Your task to perform on an android device: Clear all items from cart on amazon.com. Add "apple airpods pro" to the cart on amazon.com, then select checkout. Image 0: 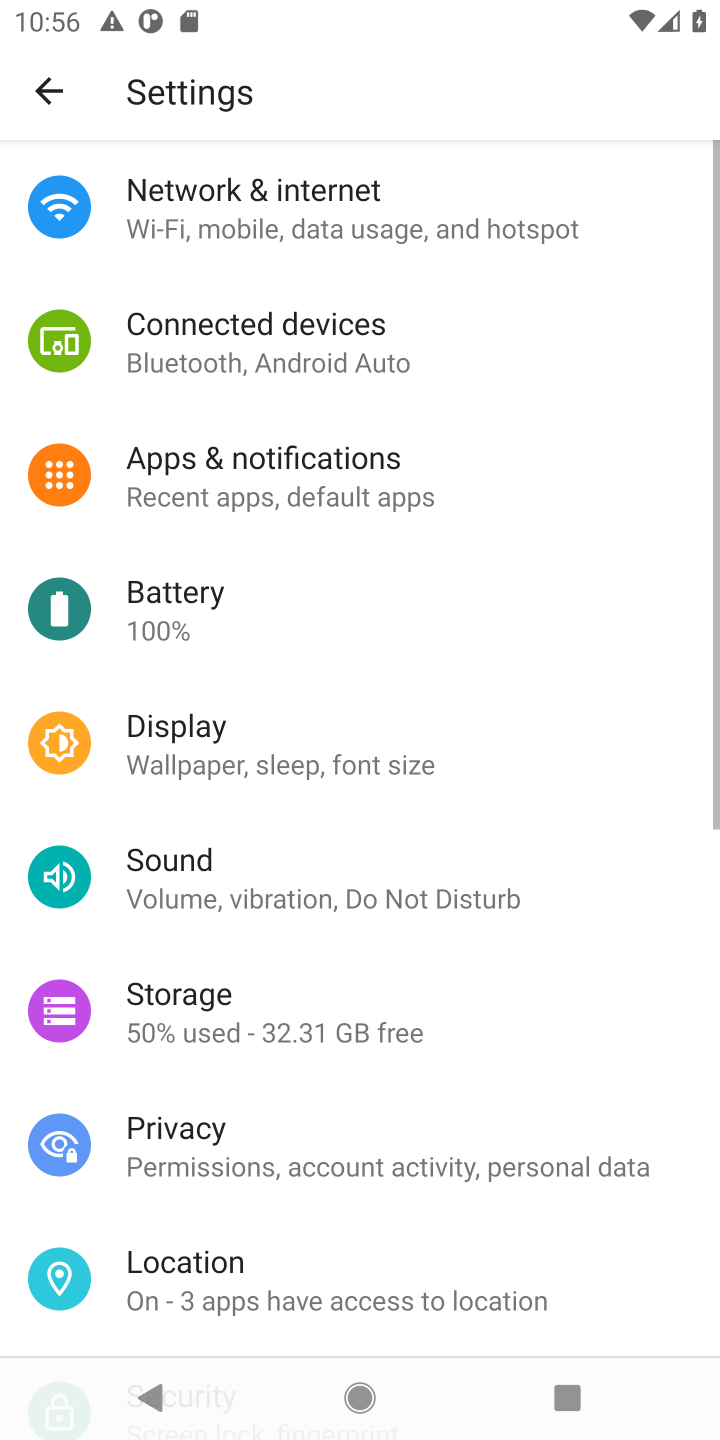
Step 0: press home button
Your task to perform on an android device: Clear all items from cart on amazon.com. Add "apple airpods pro" to the cart on amazon.com, then select checkout. Image 1: 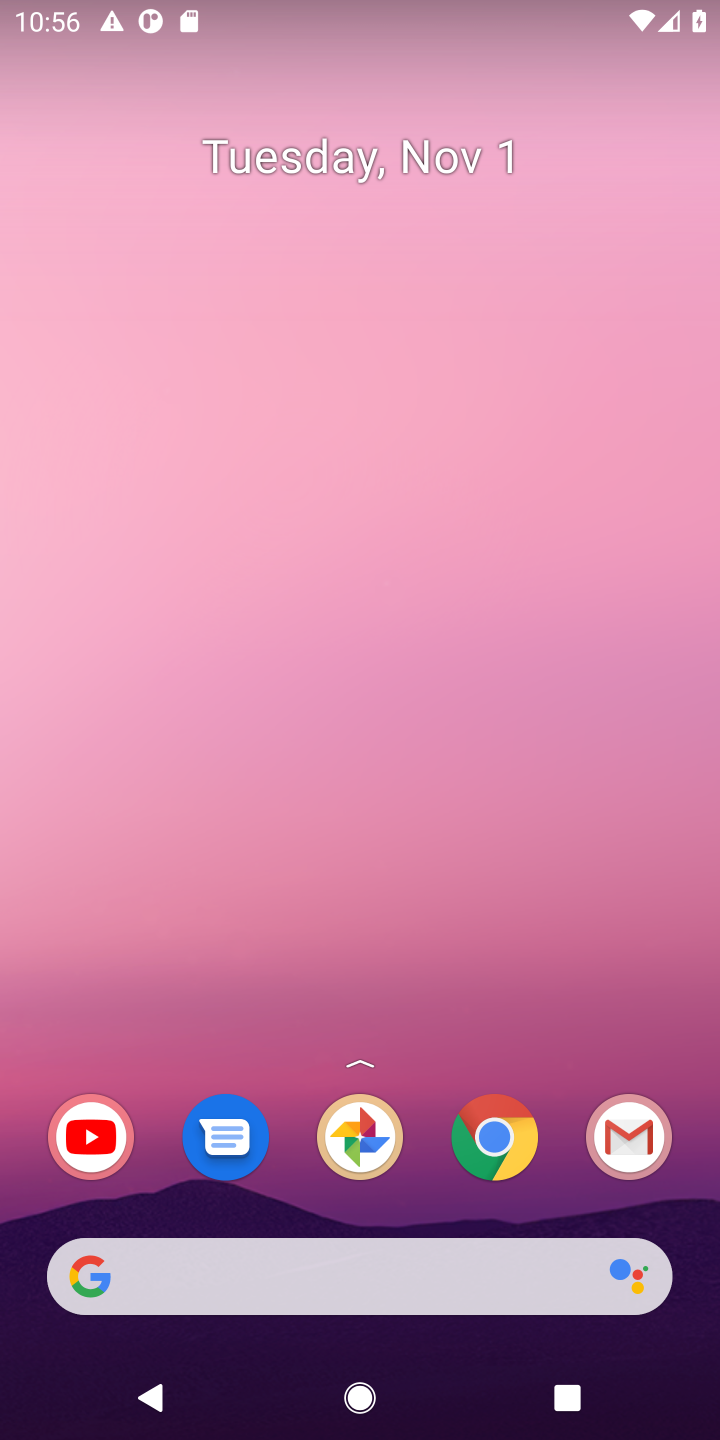
Step 1: click (324, 1280)
Your task to perform on an android device: Clear all items from cart on amazon.com. Add "apple airpods pro" to the cart on amazon.com, then select checkout. Image 2: 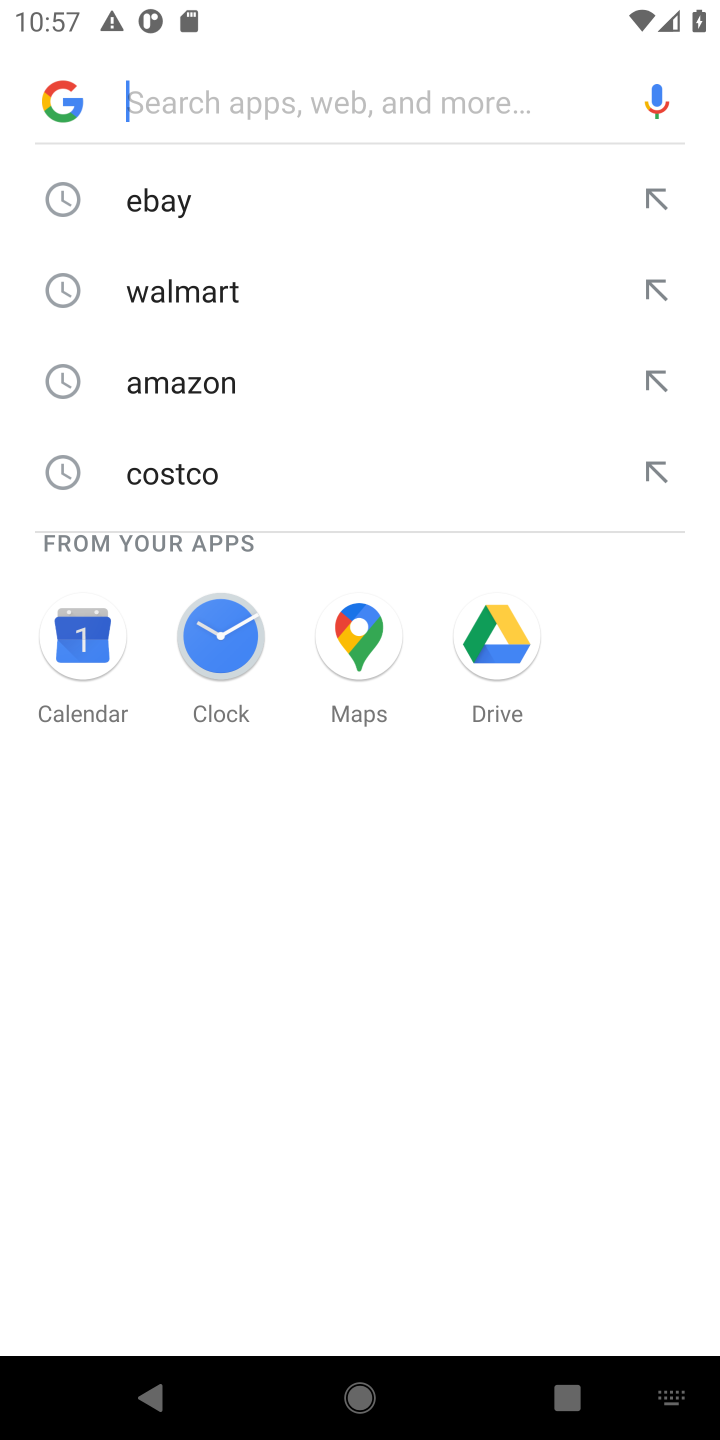
Step 2: click (197, 399)
Your task to perform on an android device: Clear all items from cart on amazon.com. Add "apple airpods pro" to the cart on amazon.com, then select checkout. Image 3: 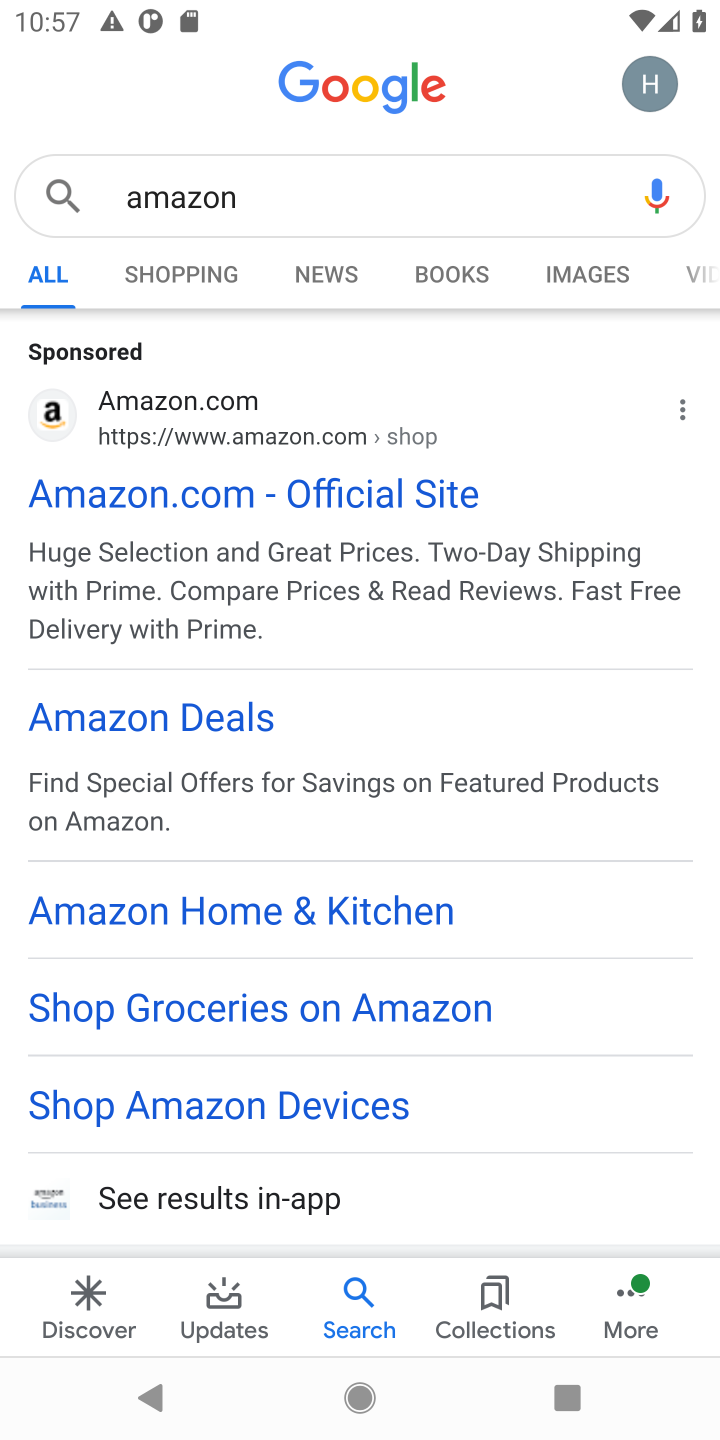
Step 3: click (163, 399)
Your task to perform on an android device: Clear all items from cart on amazon.com. Add "apple airpods pro" to the cart on amazon.com, then select checkout. Image 4: 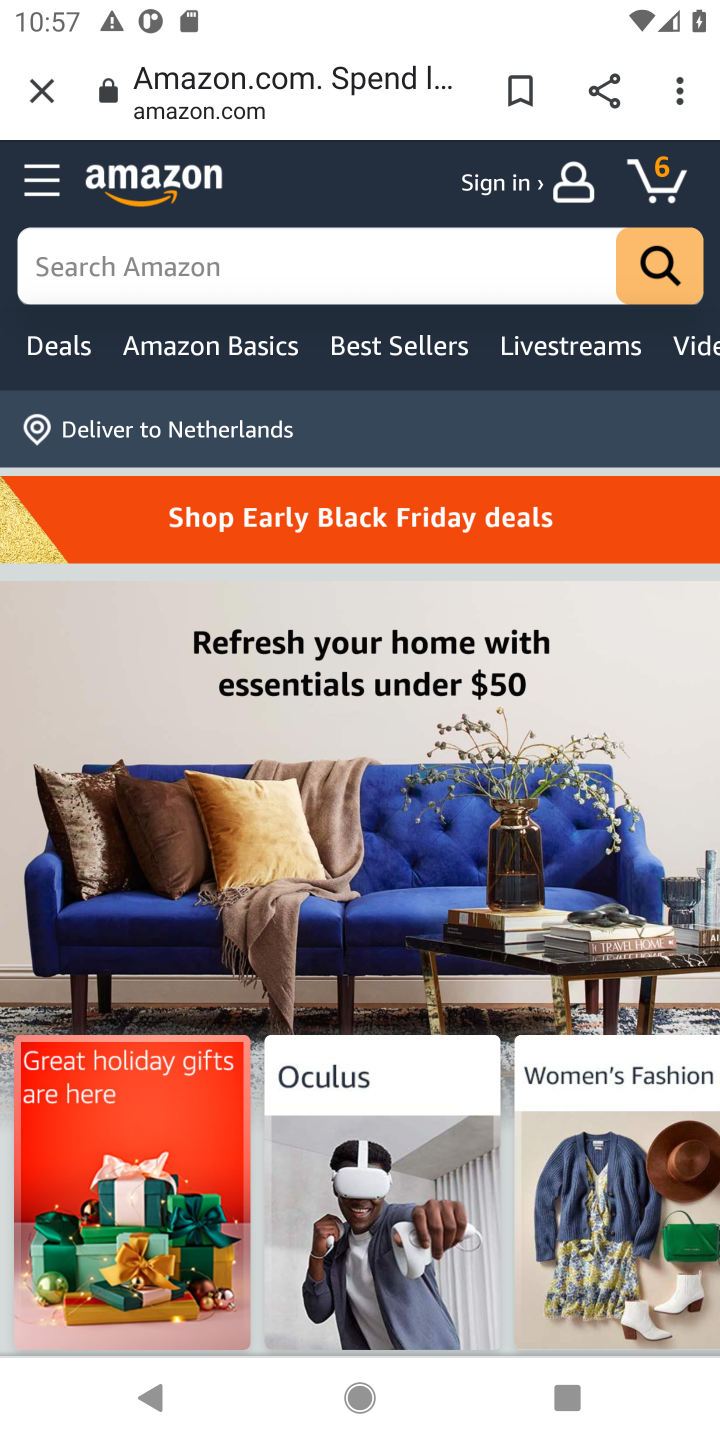
Step 4: click (188, 268)
Your task to perform on an android device: Clear all items from cart on amazon.com. Add "apple airpods pro" to the cart on amazon.com, then select checkout. Image 5: 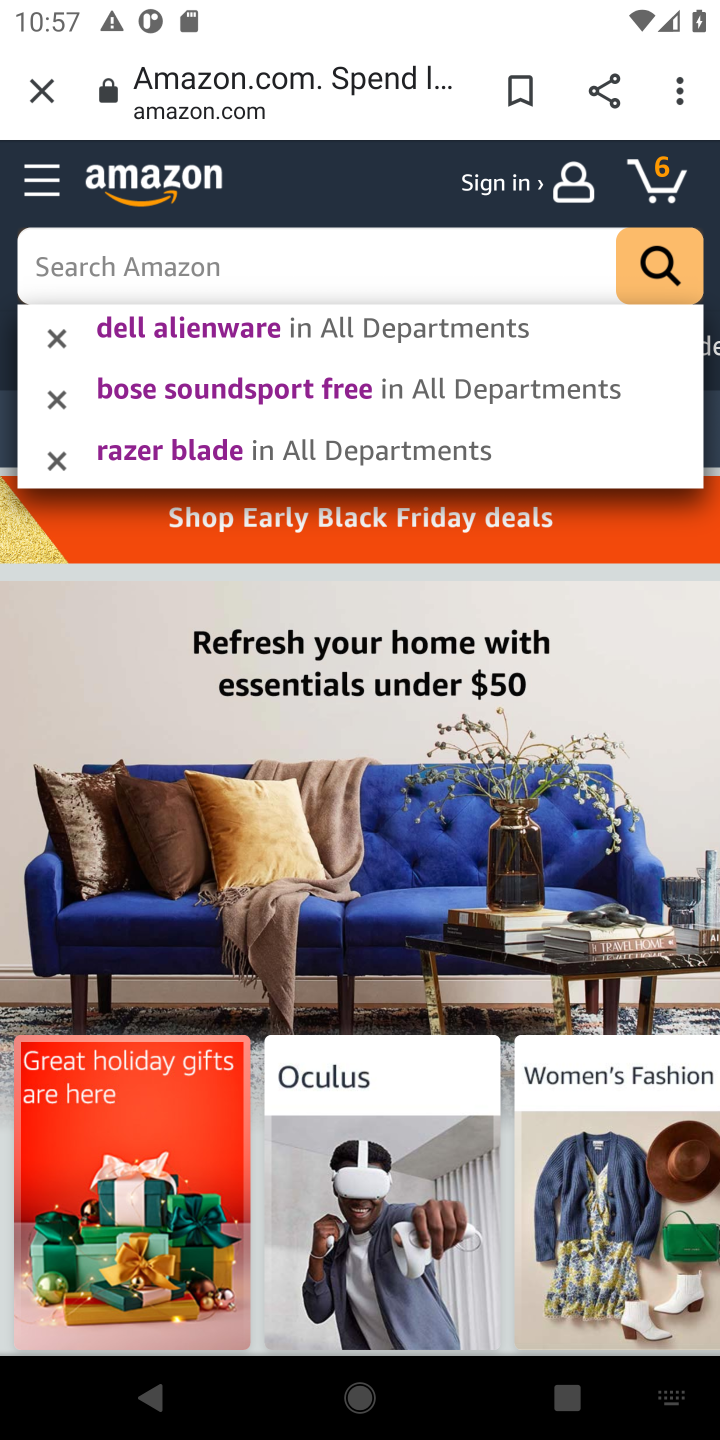
Step 5: type "apple airpods pro""
Your task to perform on an android device: Clear all items from cart on amazon.com. Add "apple airpods pro" to the cart on amazon.com, then select checkout. Image 6: 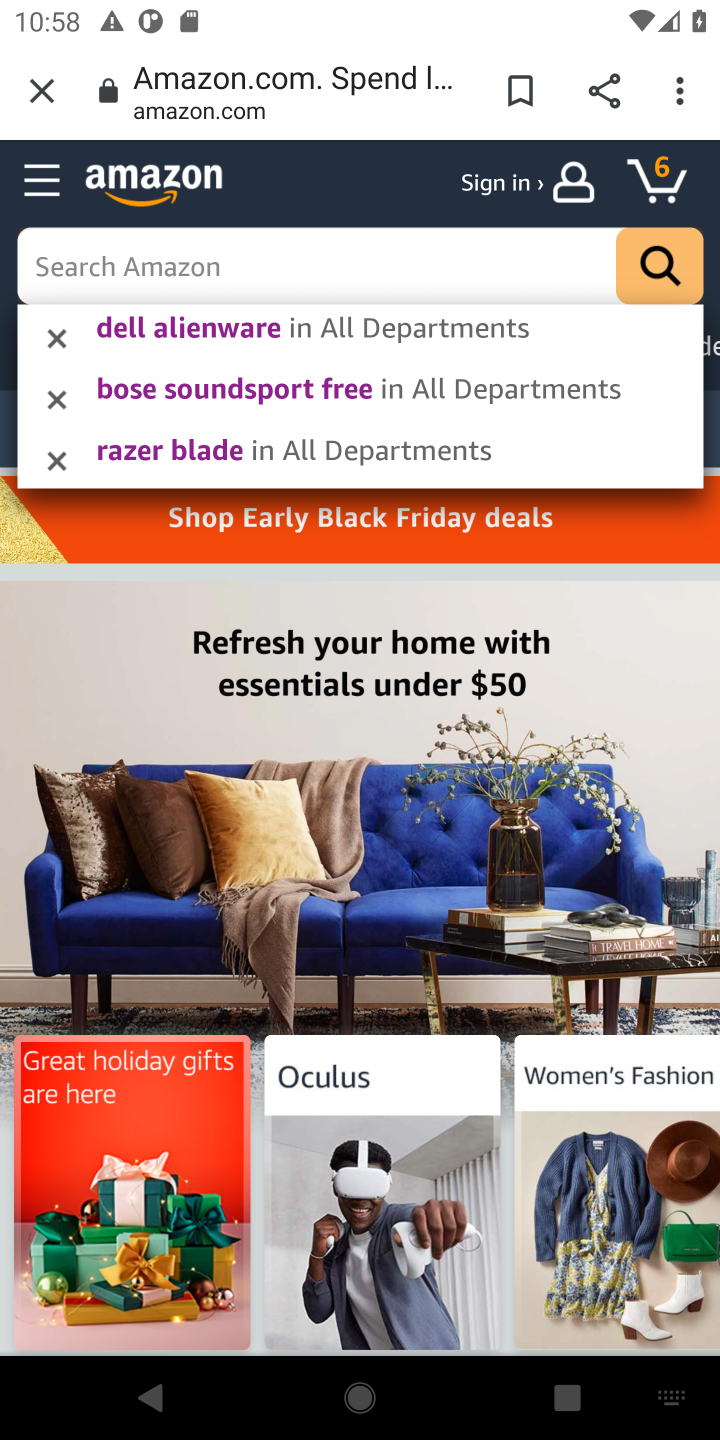
Step 6: type "apple airpods pro""
Your task to perform on an android device: Clear all items from cart on amazon.com. Add "apple airpods pro" to the cart on amazon.com, then select checkout. Image 7: 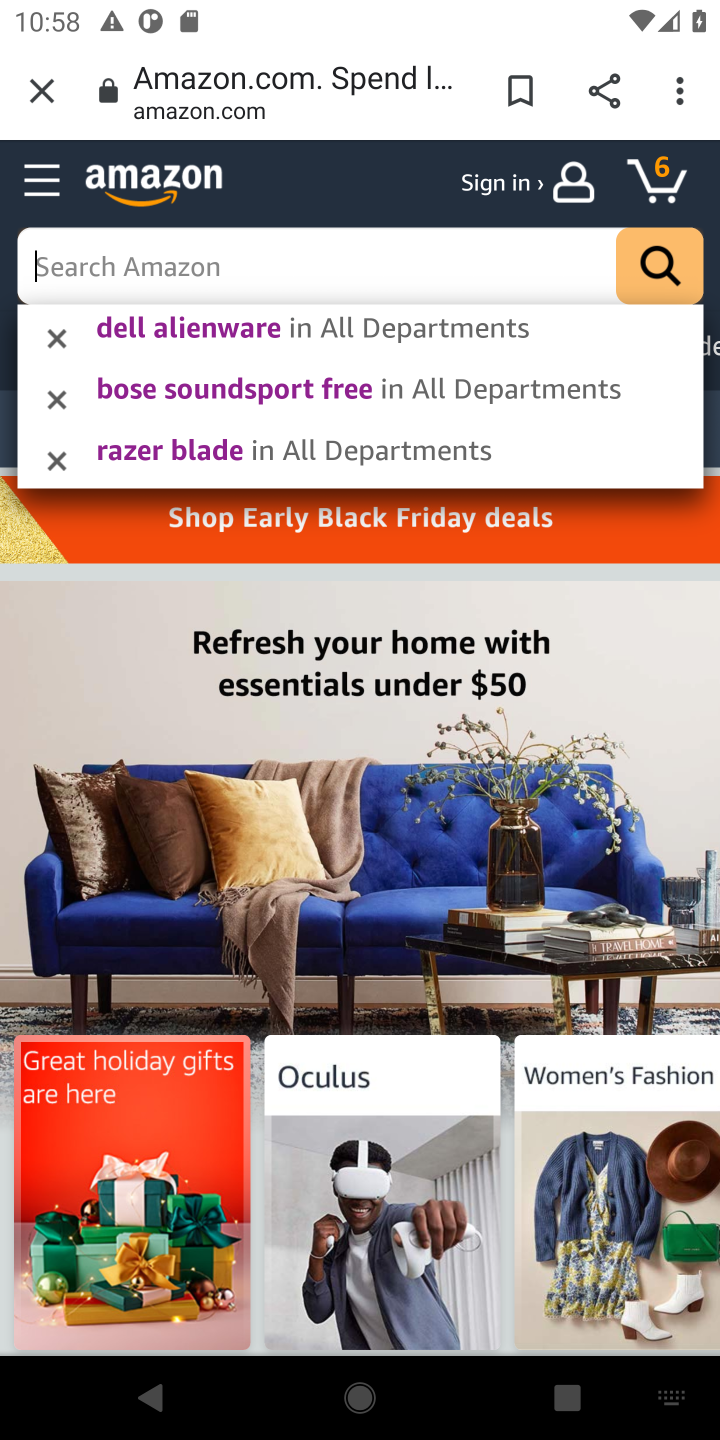
Step 7: type "apple airpods pro"
Your task to perform on an android device: Clear all items from cart on amazon.com. Add "apple airpods pro" to the cart on amazon.com, then select checkout. Image 8: 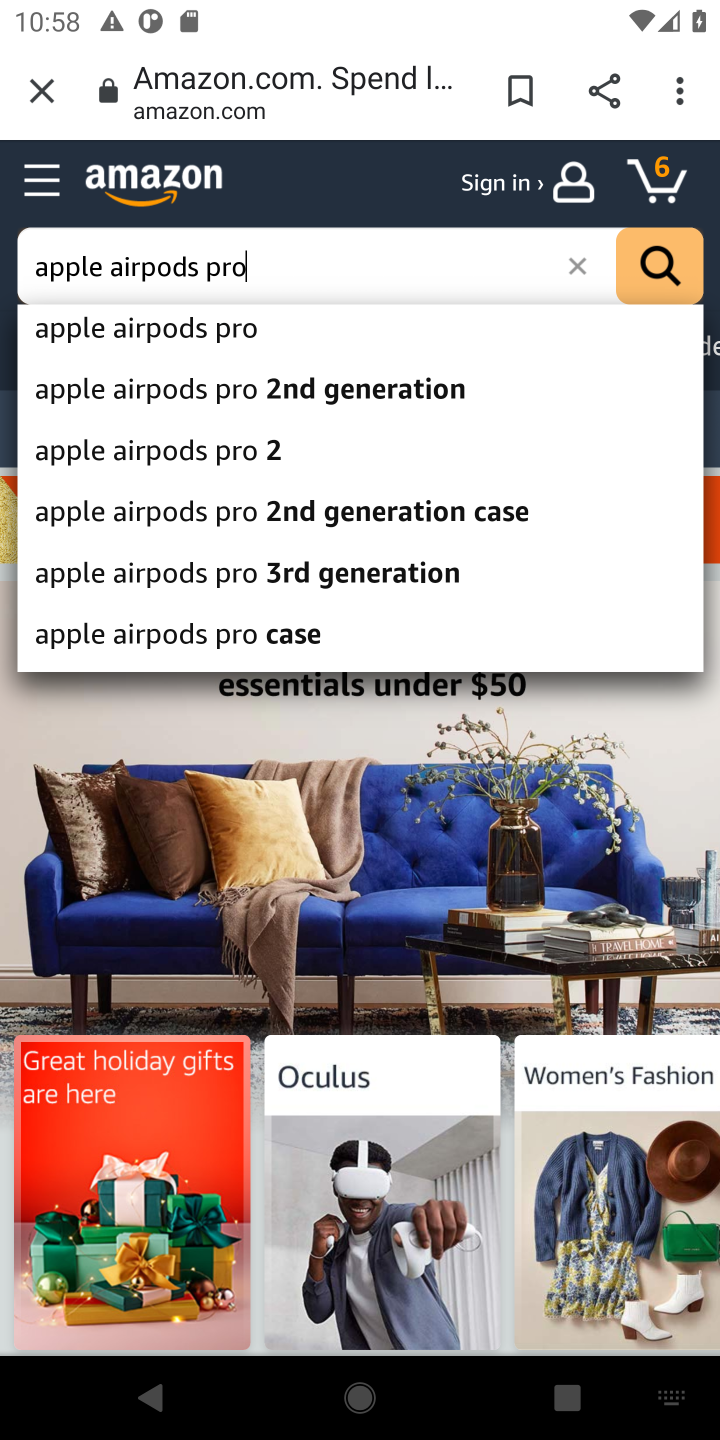
Step 8: click (198, 336)
Your task to perform on an android device: Clear all items from cart on amazon.com. Add "apple airpods pro" to the cart on amazon.com, then select checkout. Image 9: 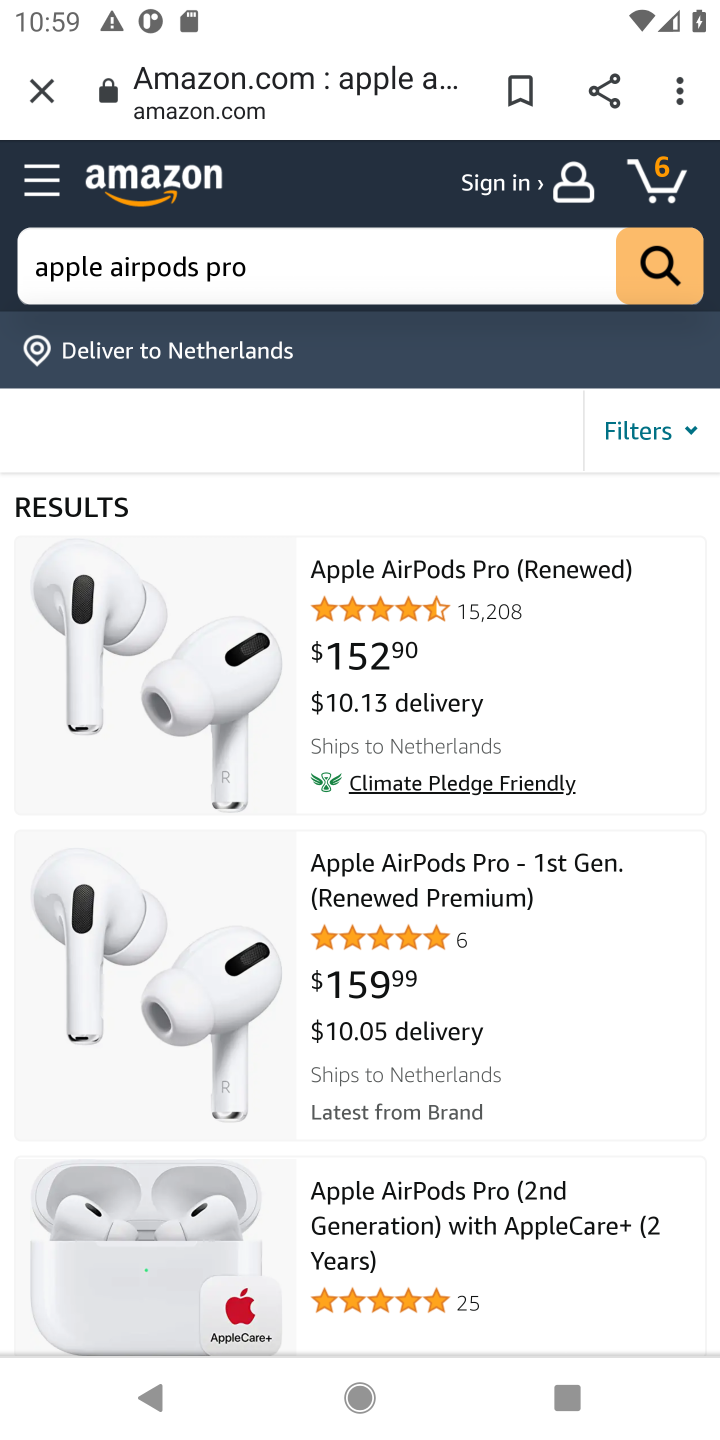
Step 9: click (330, 567)
Your task to perform on an android device: Clear all items from cart on amazon.com. Add "apple airpods pro" to the cart on amazon.com, then select checkout. Image 10: 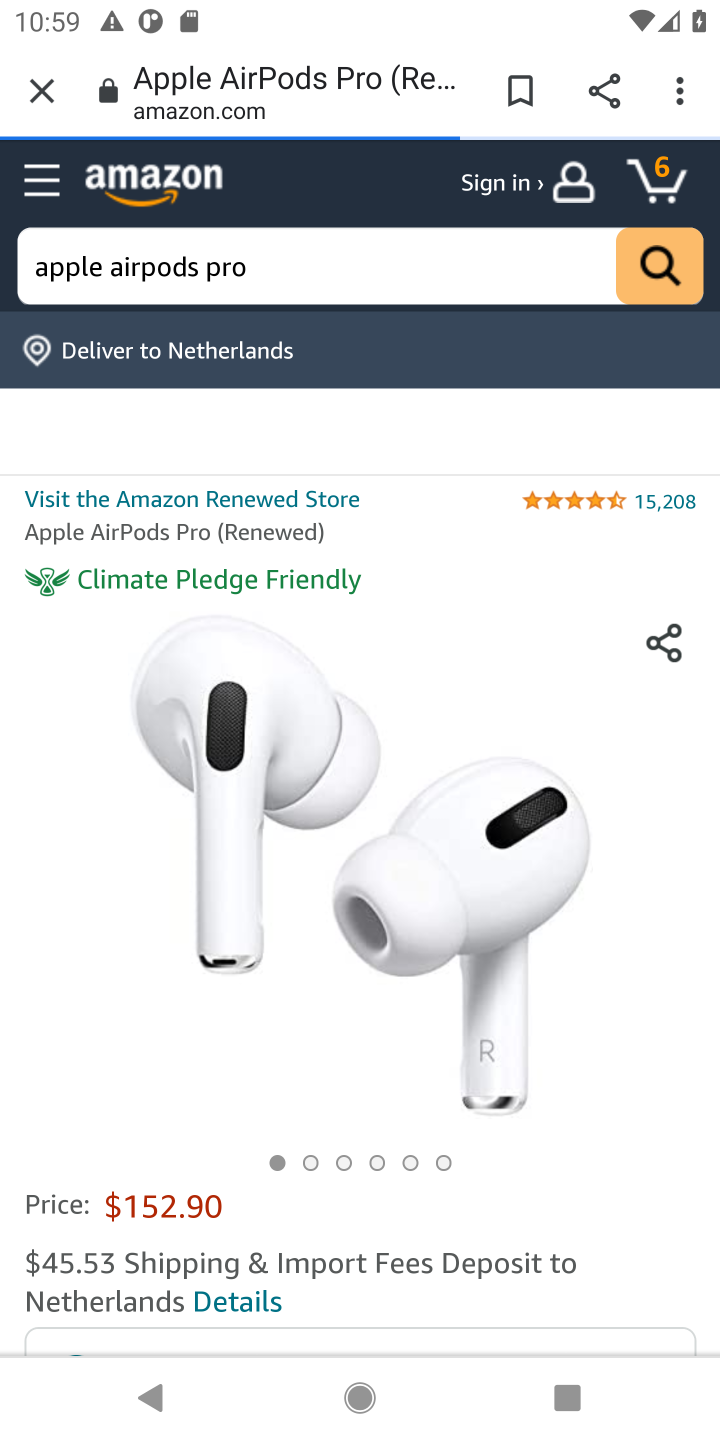
Step 10: click (267, 1101)
Your task to perform on an android device: Clear all items from cart on amazon.com. Add "apple airpods pro" to the cart on amazon.com, then select checkout. Image 11: 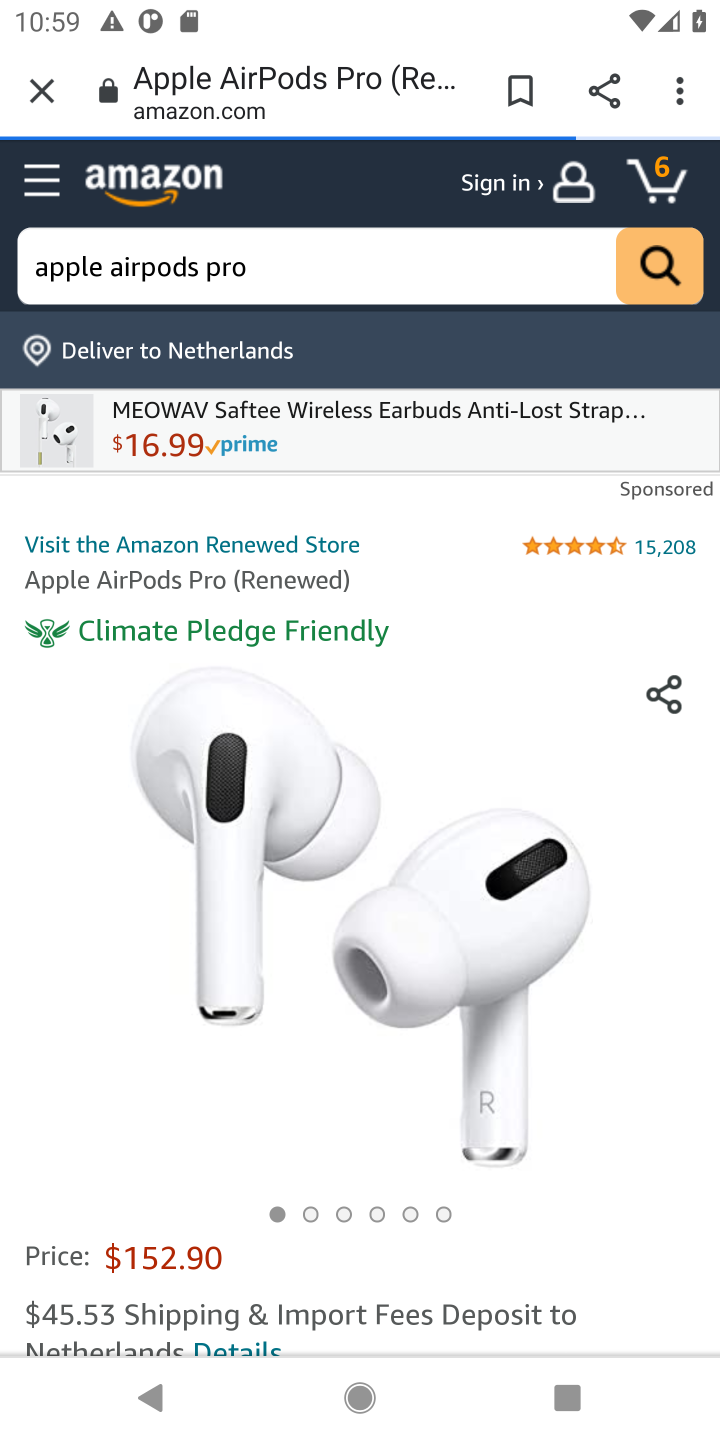
Step 11: drag from (356, 1111) to (343, 425)
Your task to perform on an android device: Clear all items from cart on amazon.com. Add "apple airpods pro" to the cart on amazon.com, then select checkout. Image 12: 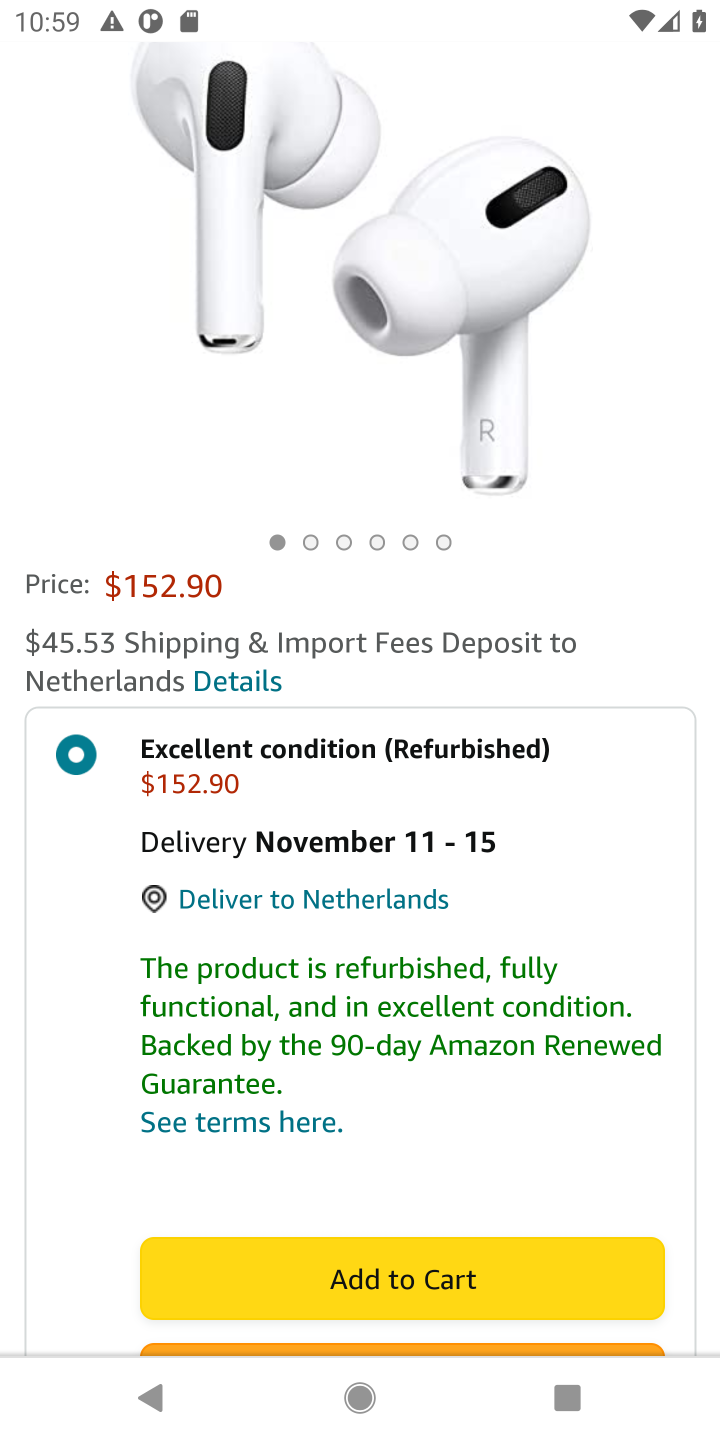
Step 12: click (415, 1262)
Your task to perform on an android device: Clear all items from cart on amazon.com. Add "apple airpods pro" to the cart on amazon.com, then select checkout. Image 13: 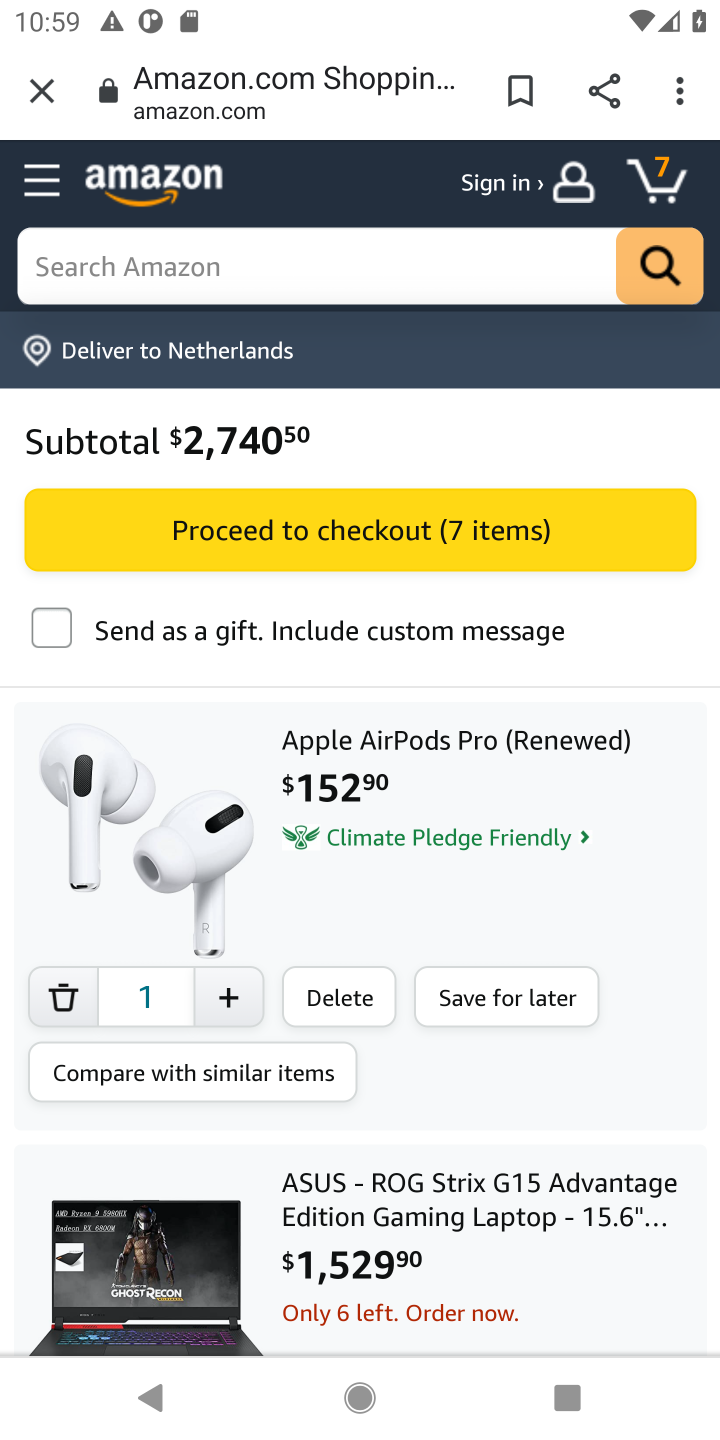
Step 13: click (356, 524)
Your task to perform on an android device: Clear all items from cart on amazon.com. Add "apple airpods pro" to the cart on amazon.com, then select checkout. Image 14: 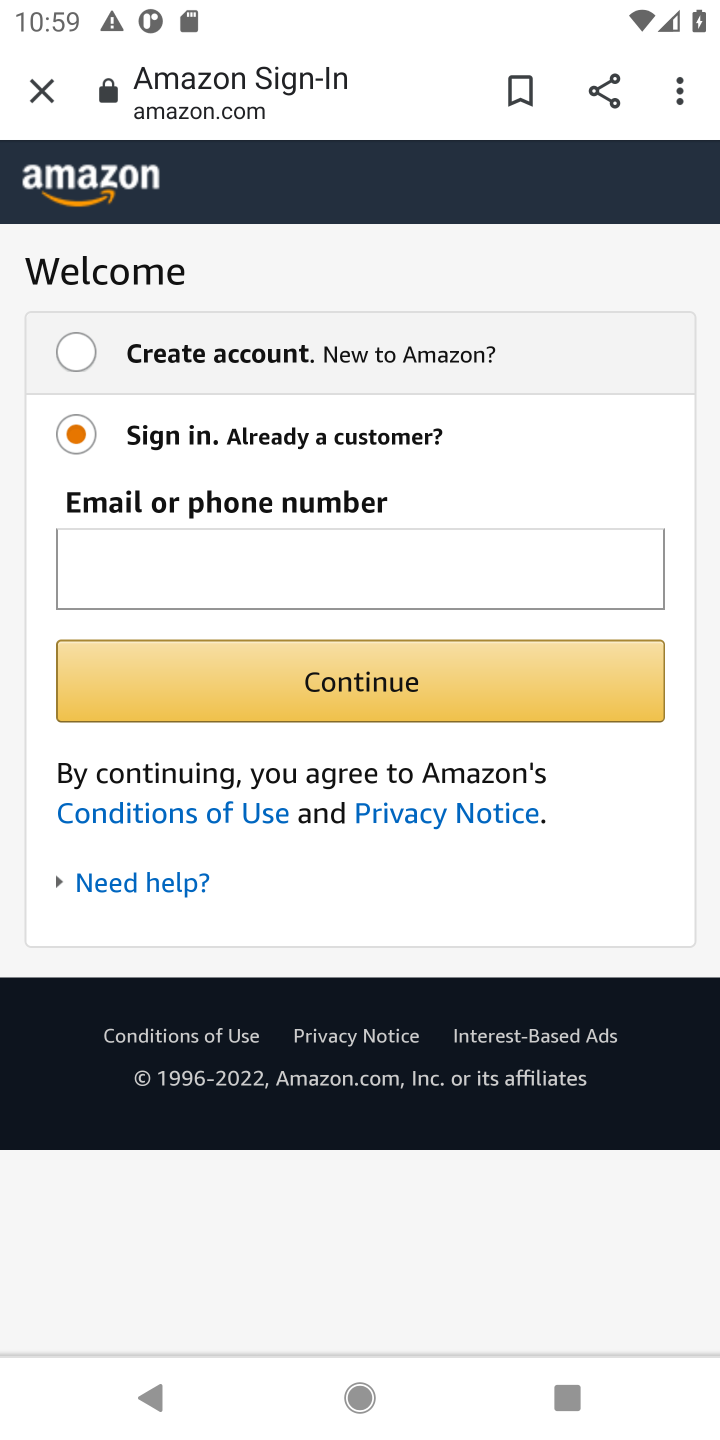
Step 14: task complete